Your task to perform on an android device: Is it going to rain this weekend? Image 0: 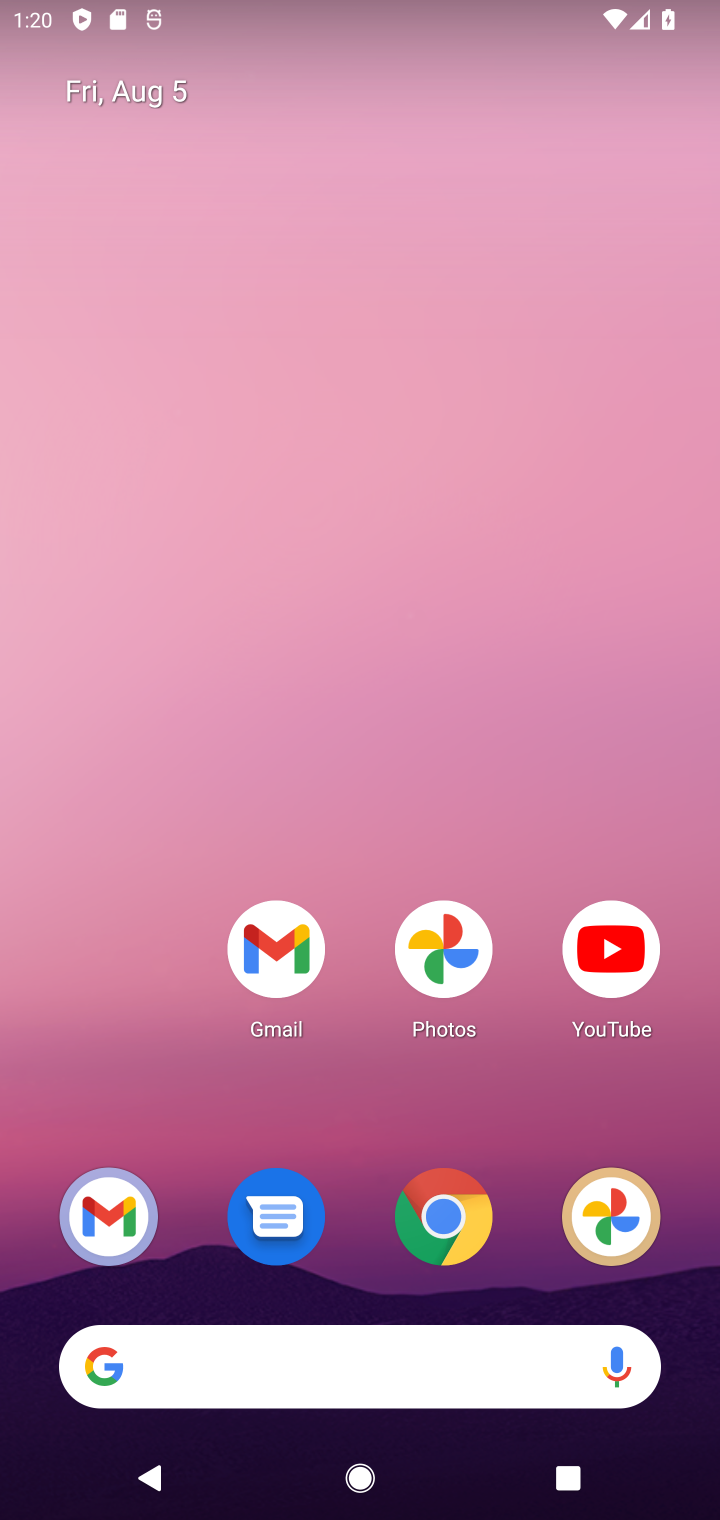
Step 0: click (506, 1360)
Your task to perform on an android device: Is it going to rain this weekend? Image 1: 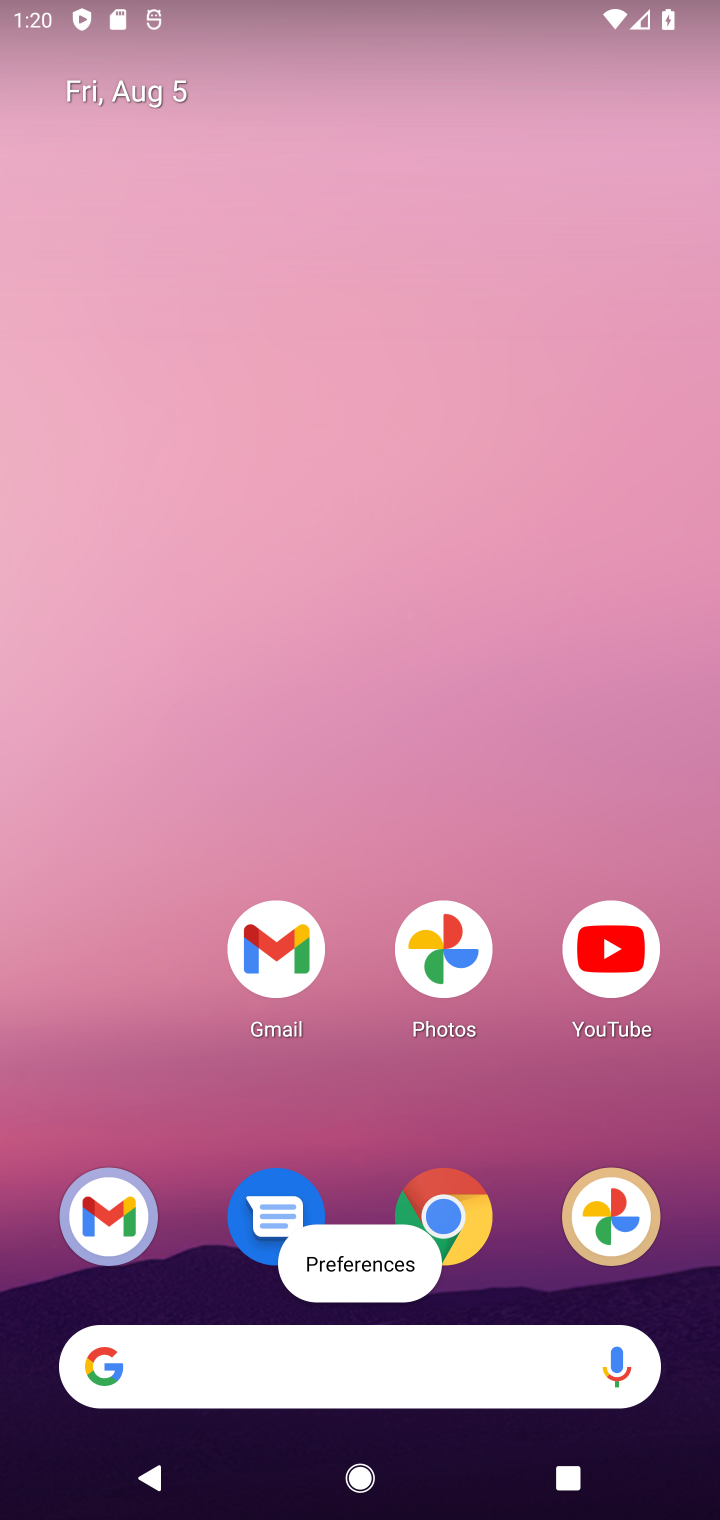
Step 1: click (467, 1383)
Your task to perform on an android device: Is it going to rain this weekend? Image 2: 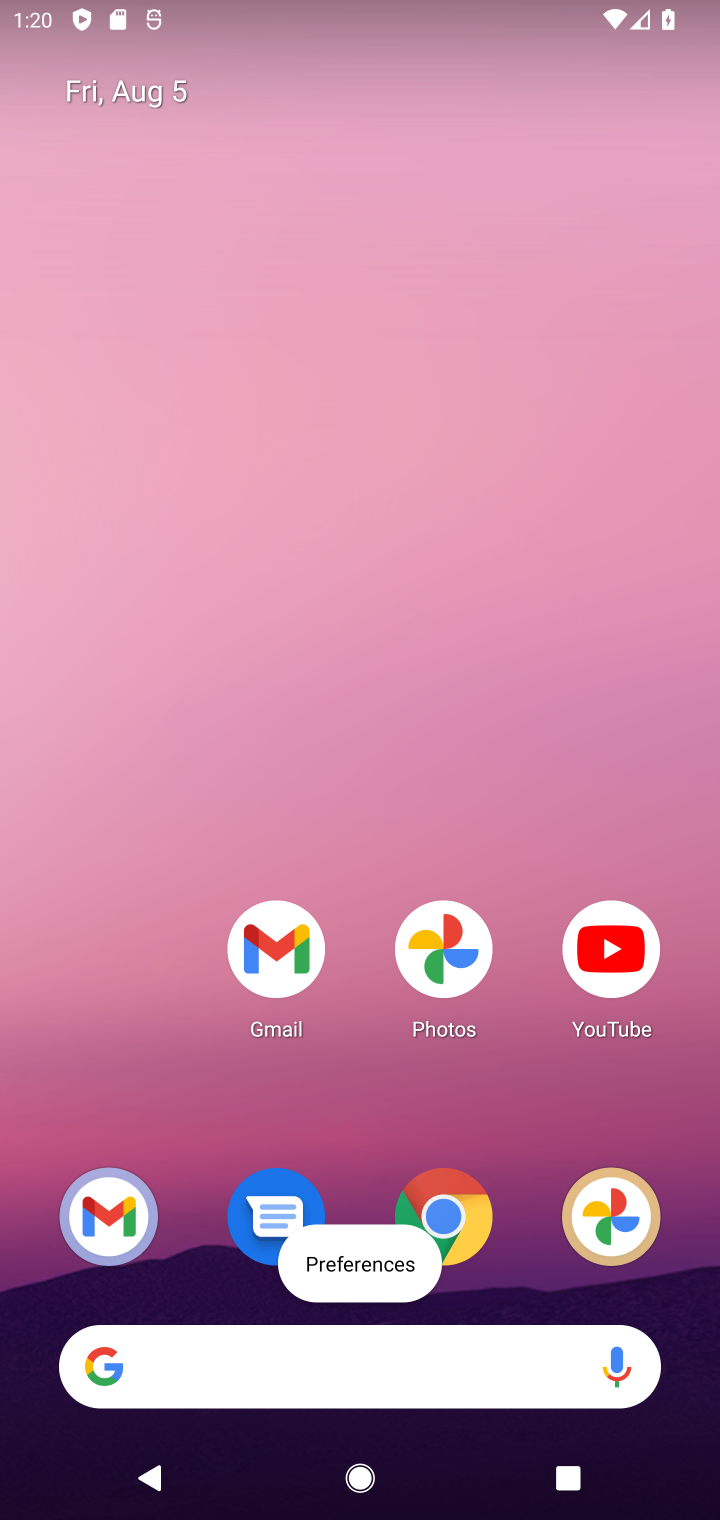
Step 2: click (500, 1367)
Your task to perform on an android device: Is it going to rain this weekend? Image 3: 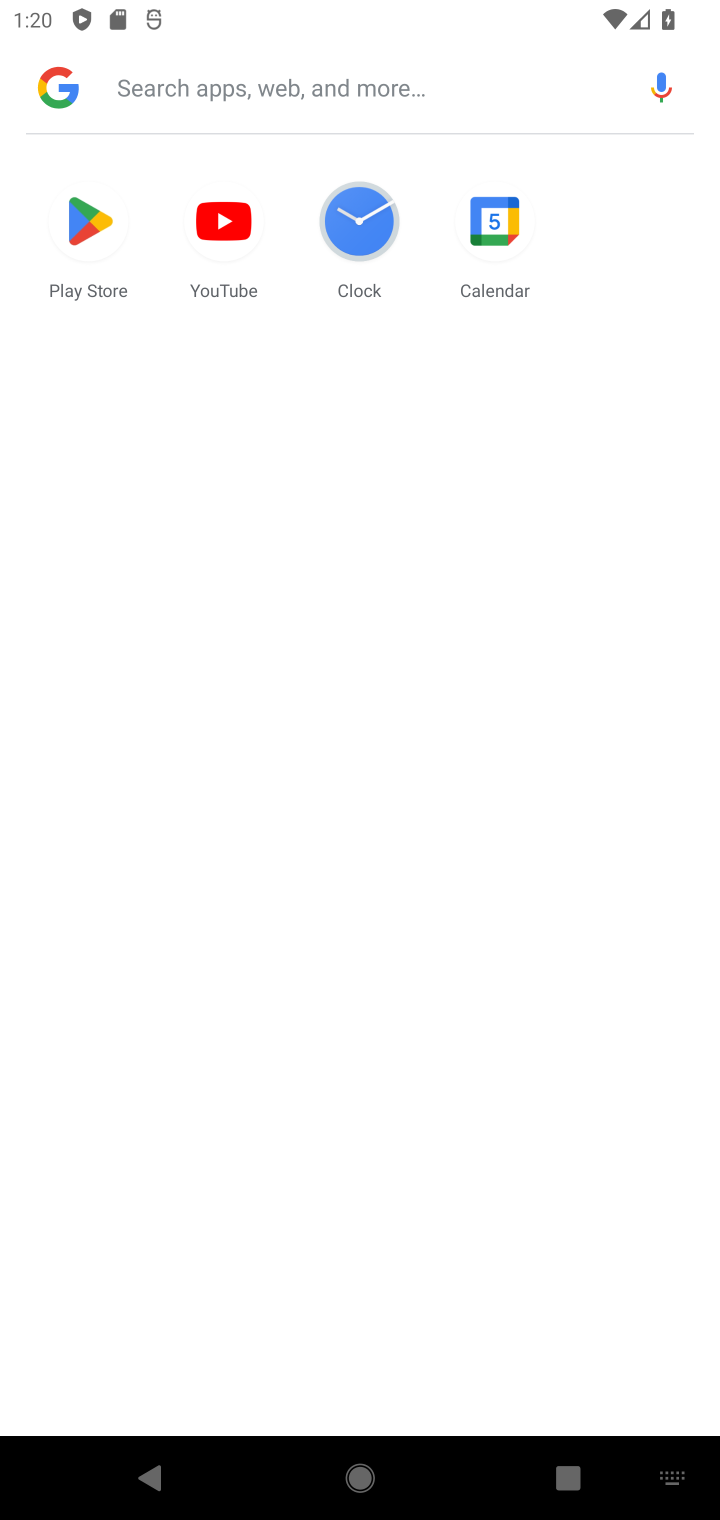
Step 3: type "Is it going to rain this weekend?"
Your task to perform on an android device: Is it going to rain this weekend? Image 4: 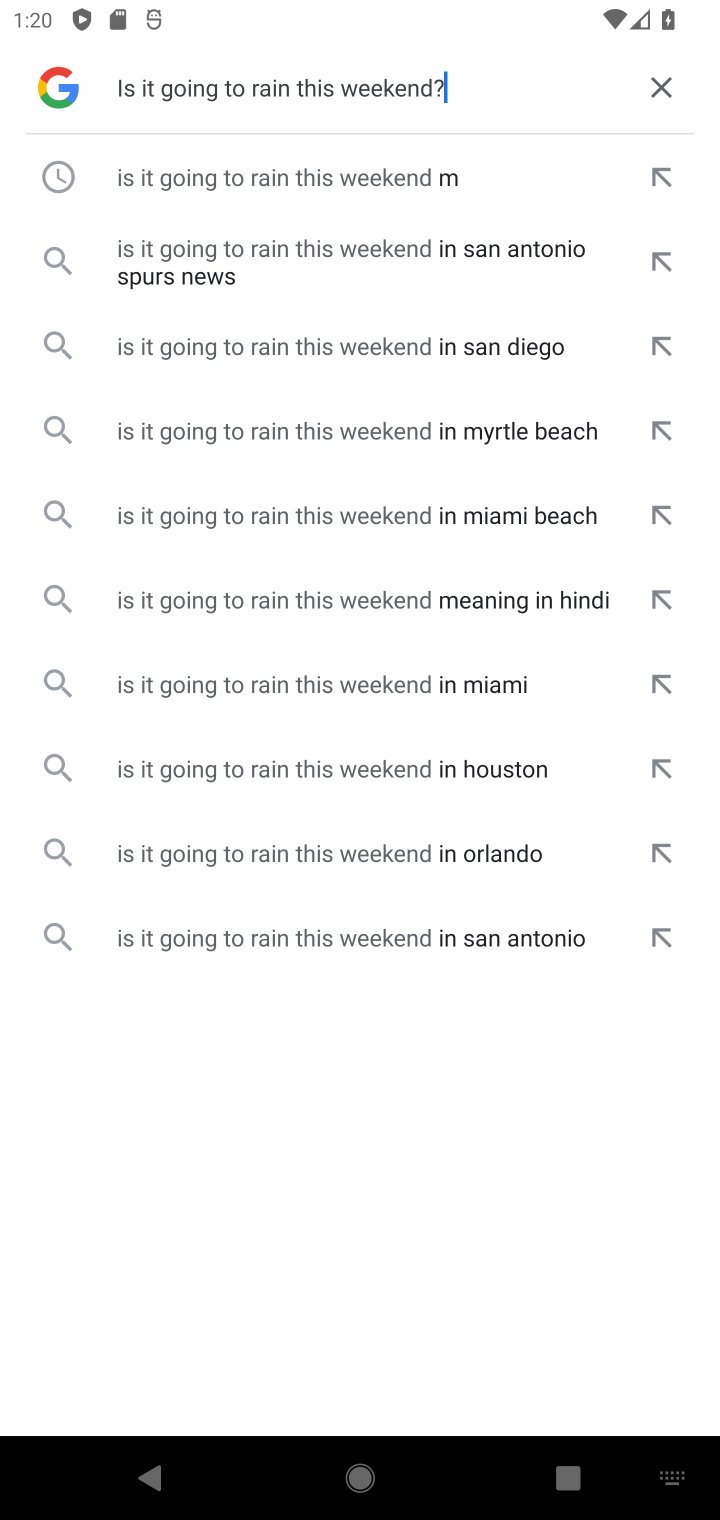
Step 4: type ""
Your task to perform on an android device: Is it going to rain this weekend? Image 5: 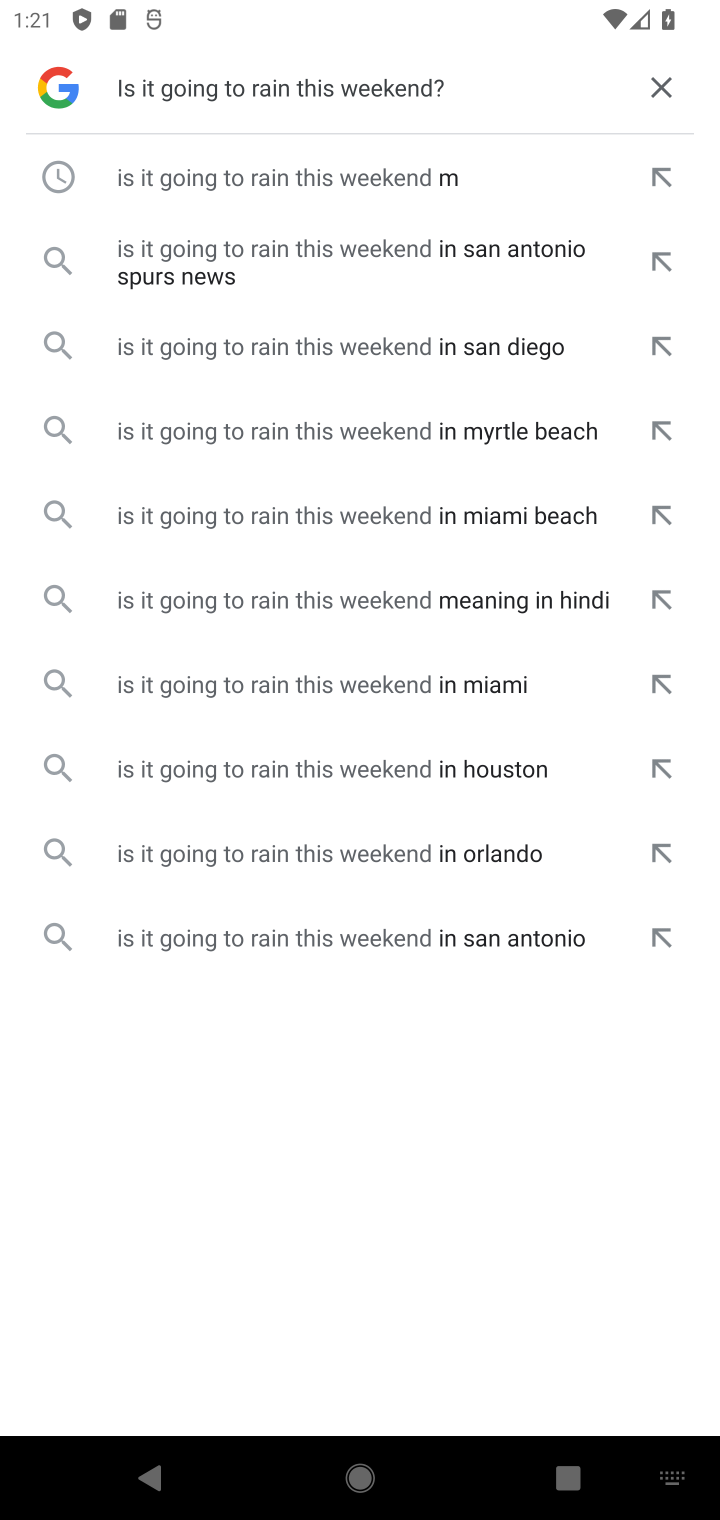
Step 5: type ""
Your task to perform on an android device: Is it going to rain this weekend? Image 6: 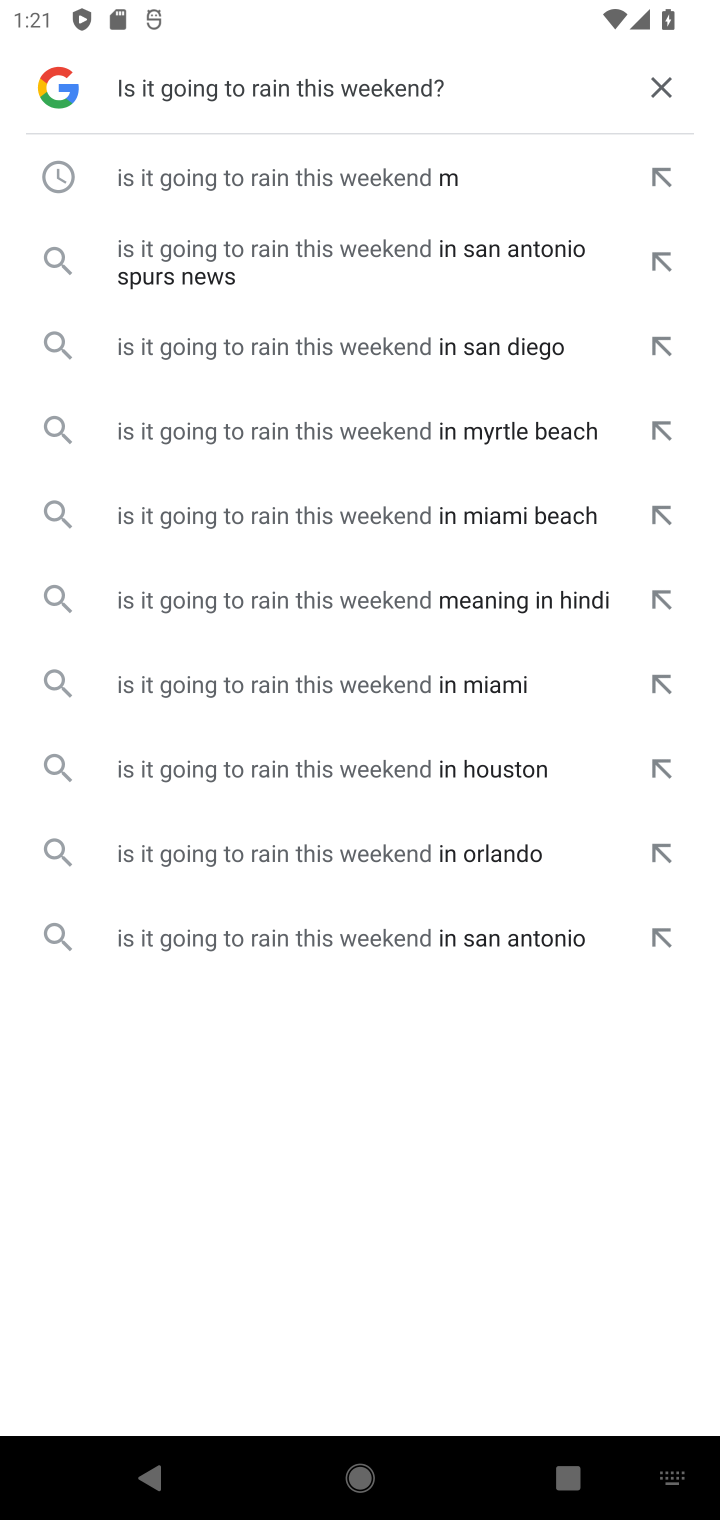
Step 6: press enter
Your task to perform on an android device: Is it going to rain this weekend? Image 7: 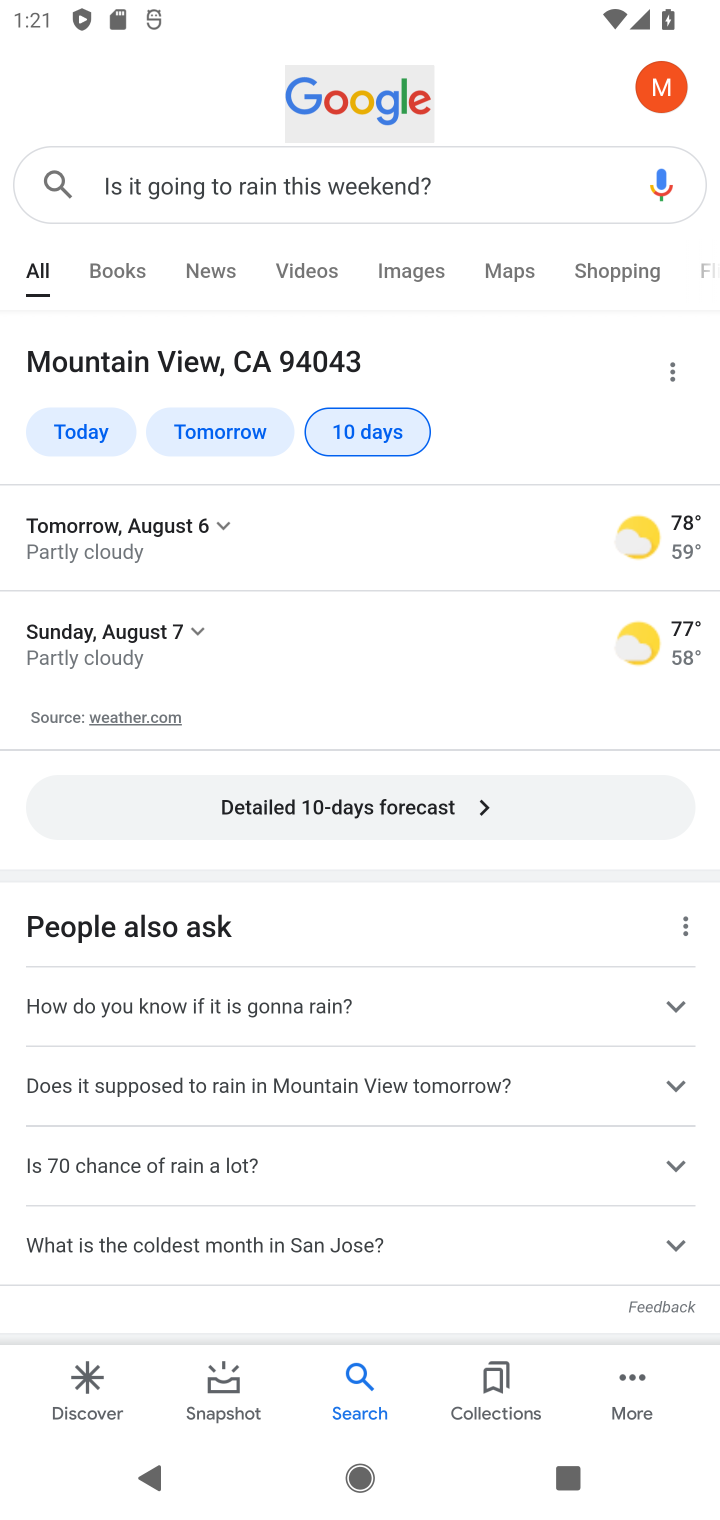
Step 7: task complete